Your task to perform on an android device: check google app version Image 0: 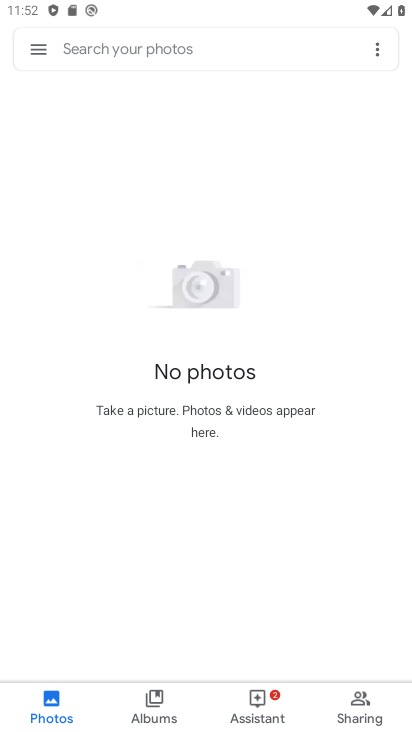
Step 0: press home button
Your task to perform on an android device: check google app version Image 1: 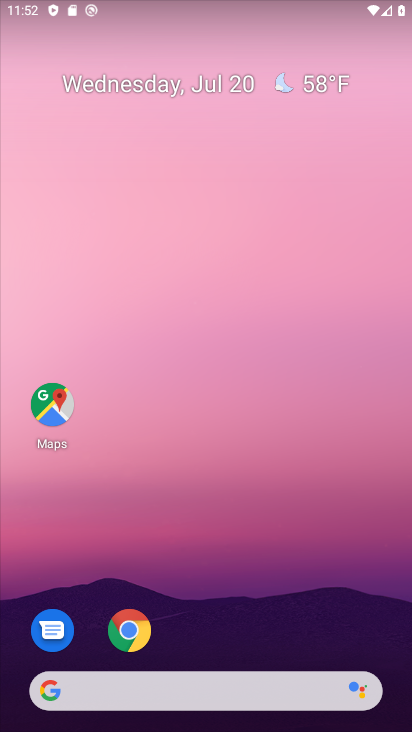
Step 1: drag from (257, 500) to (279, 212)
Your task to perform on an android device: check google app version Image 2: 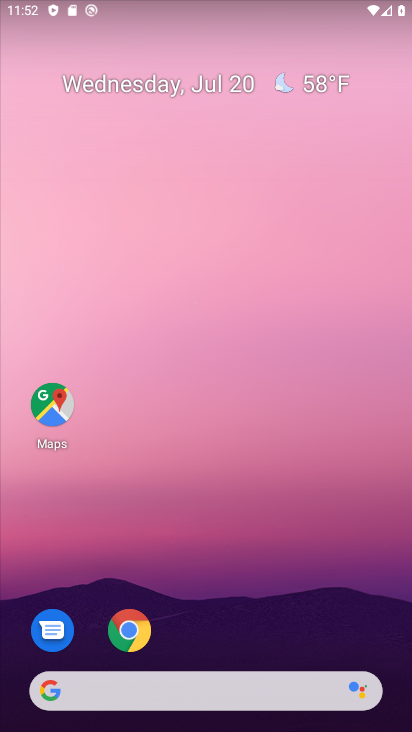
Step 2: drag from (197, 692) to (202, 359)
Your task to perform on an android device: check google app version Image 3: 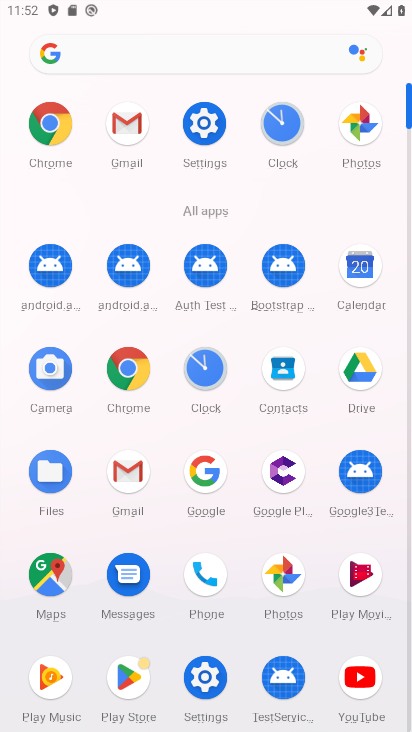
Step 3: click (212, 493)
Your task to perform on an android device: check google app version Image 4: 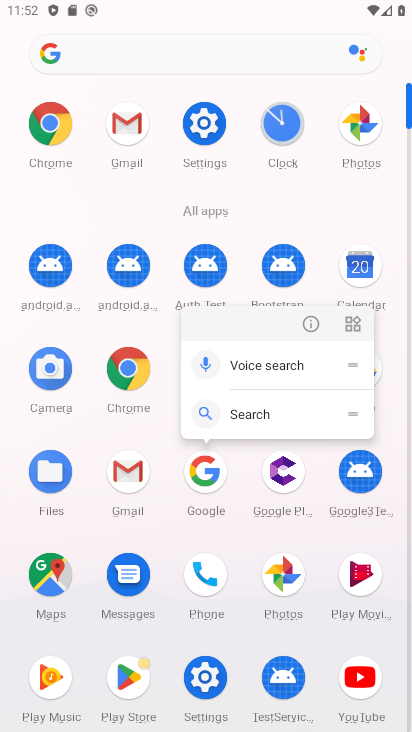
Step 4: click (310, 324)
Your task to perform on an android device: check google app version Image 5: 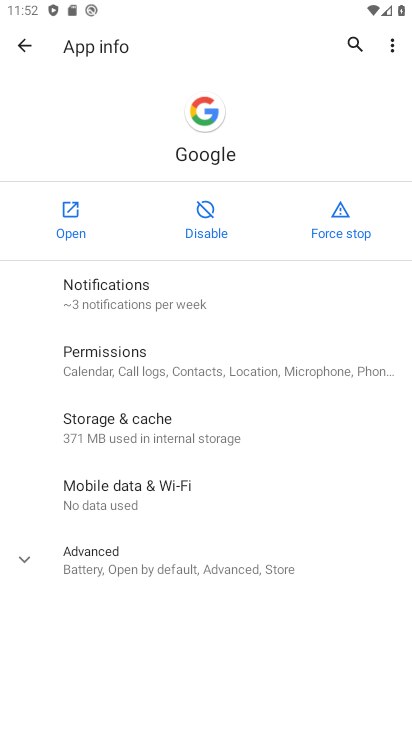
Step 5: click (120, 544)
Your task to perform on an android device: check google app version Image 6: 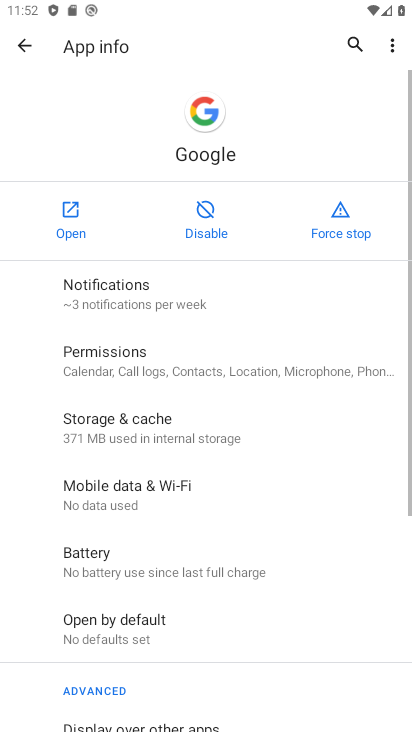
Step 6: task complete